Your task to perform on an android device: Do I have any events this weekend? Image 0: 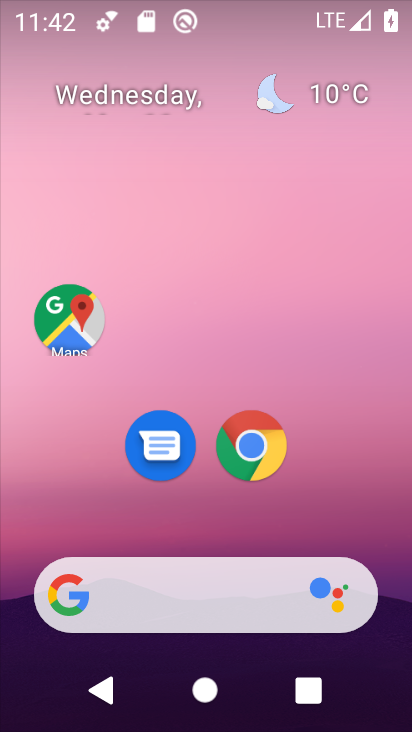
Step 0: drag from (202, 523) to (286, 4)
Your task to perform on an android device: Do I have any events this weekend? Image 1: 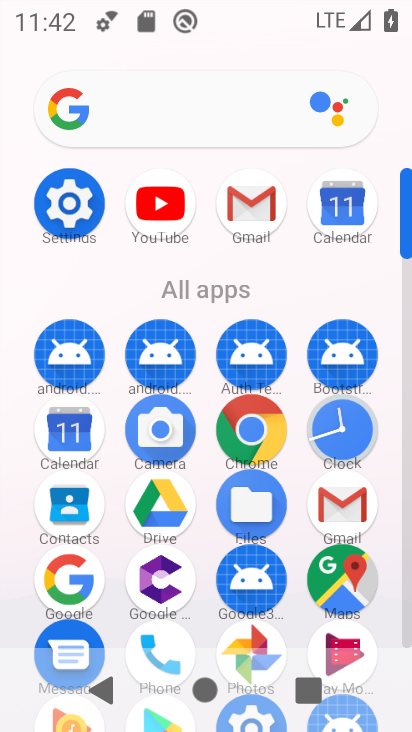
Step 1: click (73, 430)
Your task to perform on an android device: Do I have any events this weekend? Image 2: 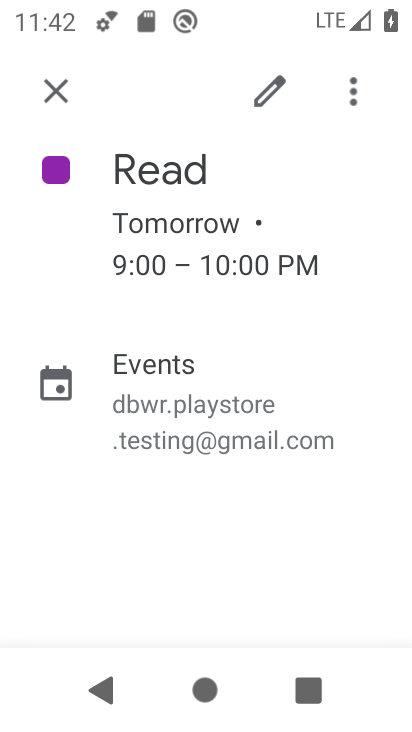
Step 2: click (60, 94)
Your task to perform on an android device: Do I have any events this weekend? Image 3: 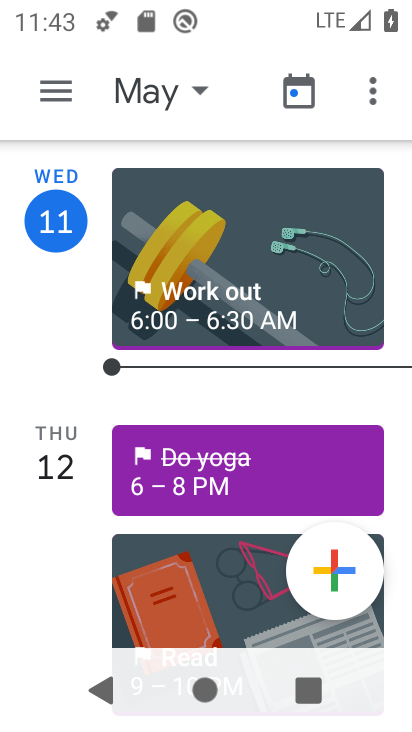
Step 3: drag from (228, 601) to (254, 115)
Your task to perform on an android device: Do I have any events this weekend? Image 4: 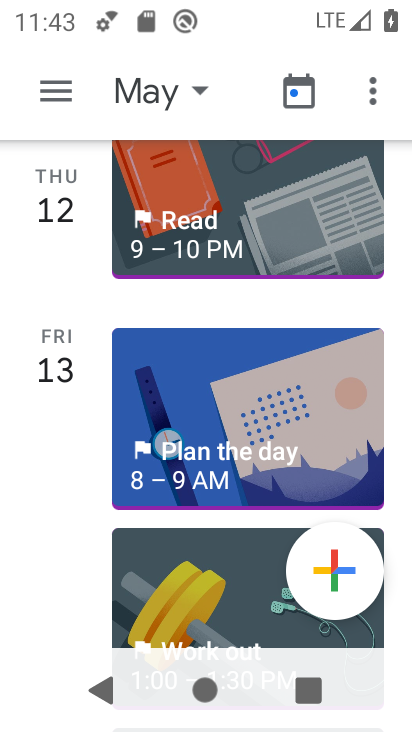
Step 4: drag from (167, 597) to (256, 133)
Your task to perform on an android device: Do I have any events this weekend? Image 5: 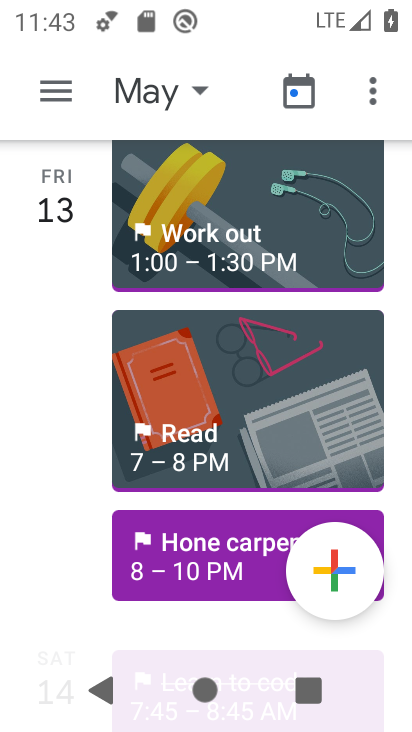
Step 5: drag from (188, 567) to (288, 158)
Your task to perform on an android device: Do I have any events this weekend? Image 6: 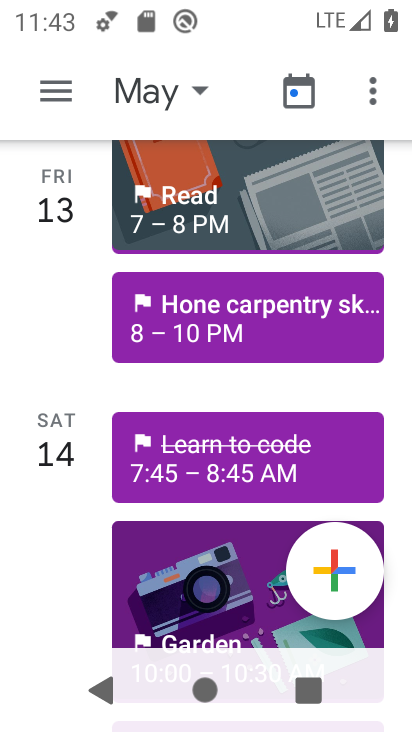
Step 6: drag from (203, 591) to (276, 119)
Your task to perform on an android device: Do I have any events this weekend? Image 7: 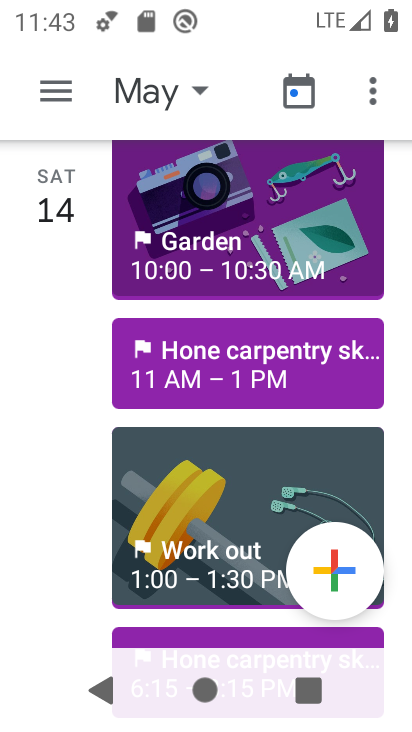
Step 7: drag from (179, 527) to (264, 36)
Your task to perform on an android device: Do I have any events this weekend? Image 8: 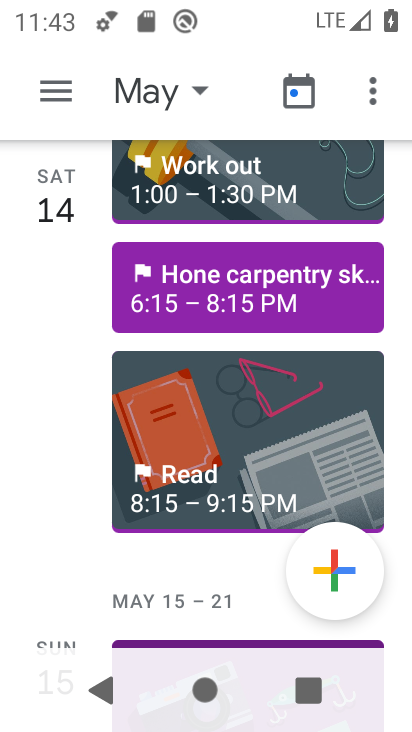
Step 8: drag from (182, 573) to (254, 131)
Your task to perform on an android device: Do I have any events this weekend? Image 9: 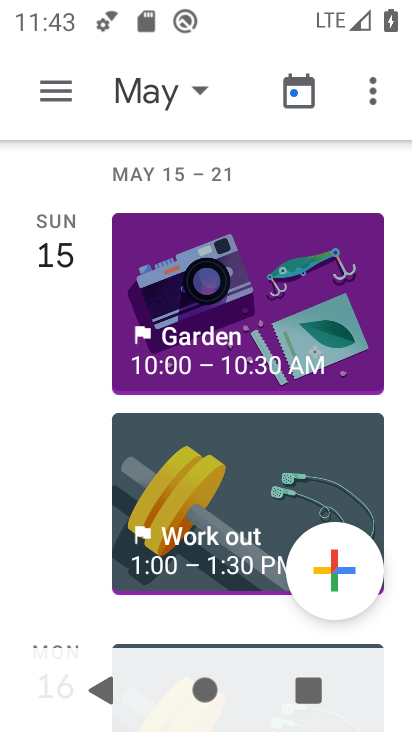
Step 9: click (153, 505)
Your task to perform on an android device: Do I have any events this weekend? Image 10: 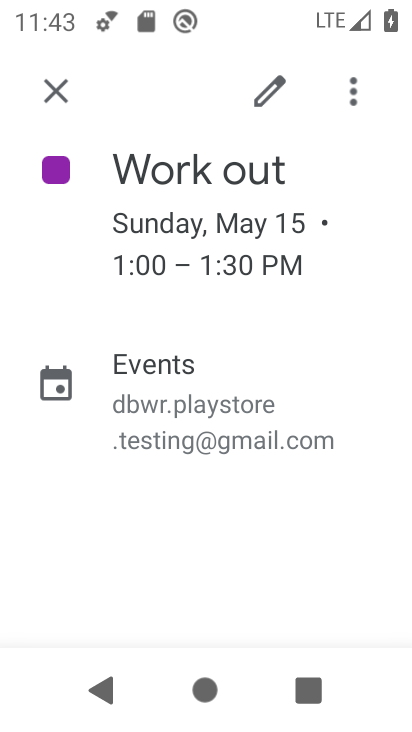
Step 10: task complete